Your task to perform on an android device: Check the news Image 0: 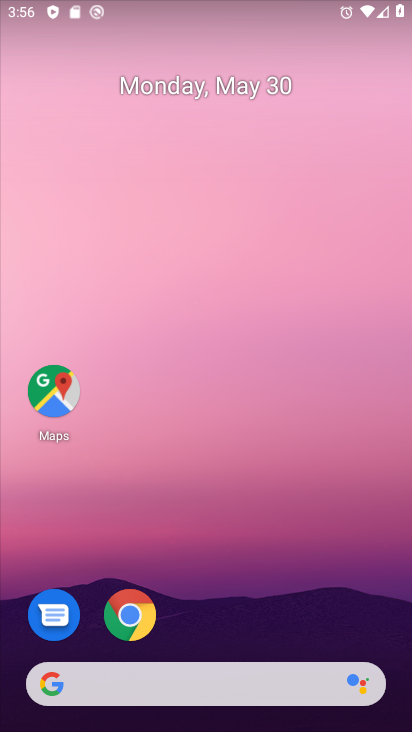
Step 0: click (265, 692)
Your task to perform on an android device: Check the news Image 1: 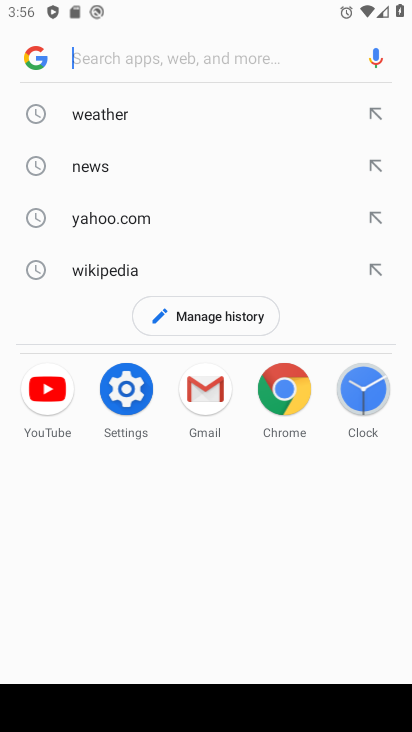
Step 1: click (89, 154)
Your task to perform on an android device: Check the news Image 2: 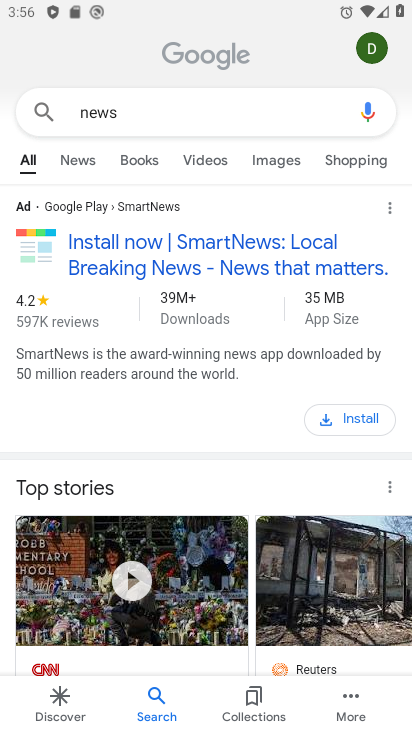
Step 2: task complete